Your task to perform on an android device: Open Google Chrome Image 0: 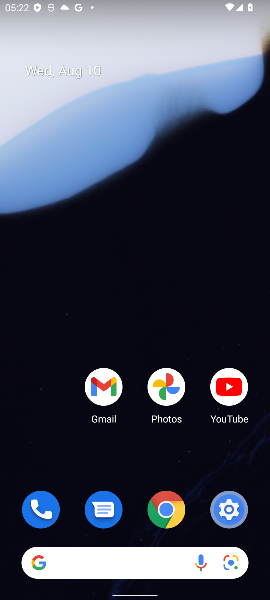
Step 0: click (166, 514)
Your task to perform on an android device: Open Google Chrome Image 1: 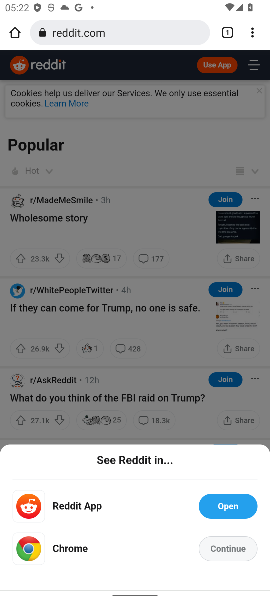
Step 1: task complete